Your task to perform on an android device: Open settings Image 0: 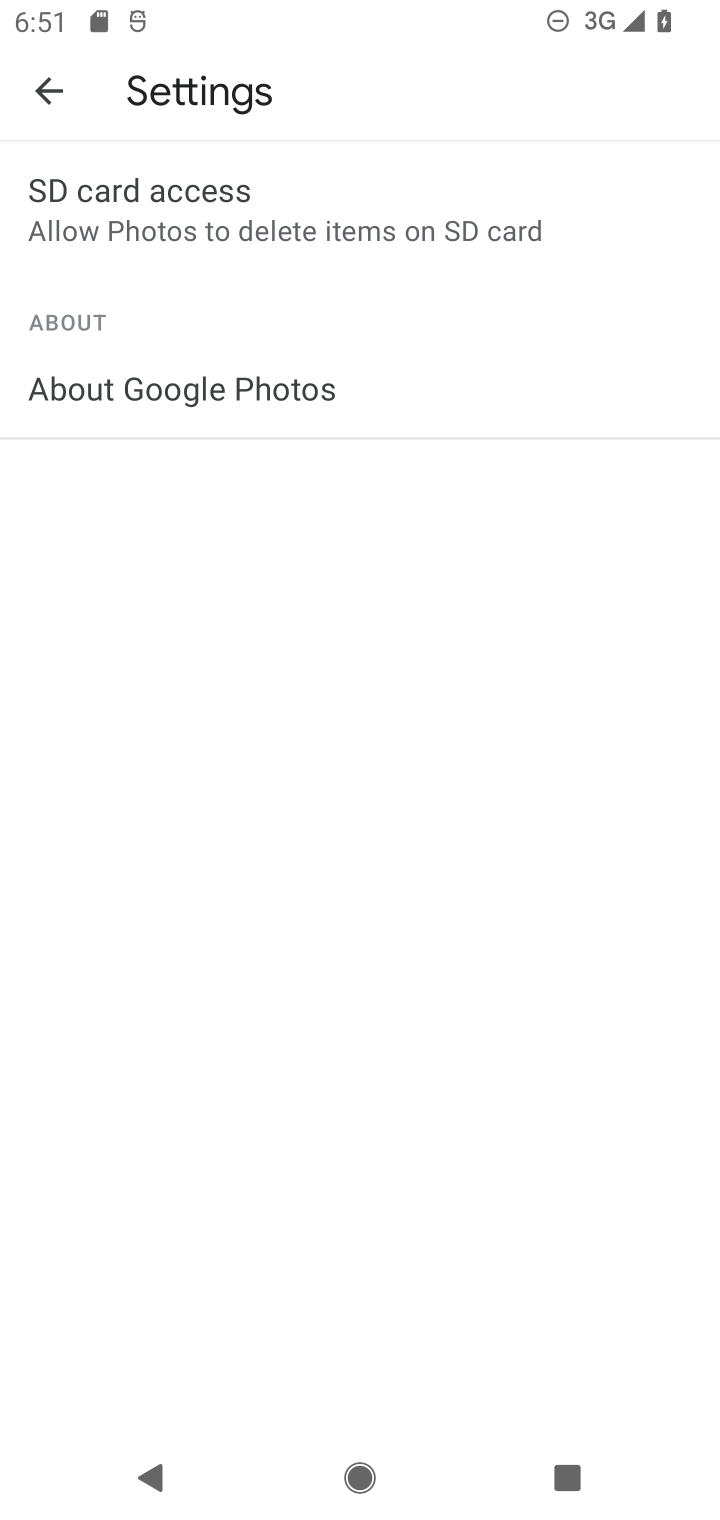
Step 0: press home button
Your task to perform on an android device: Open settings Image 1: 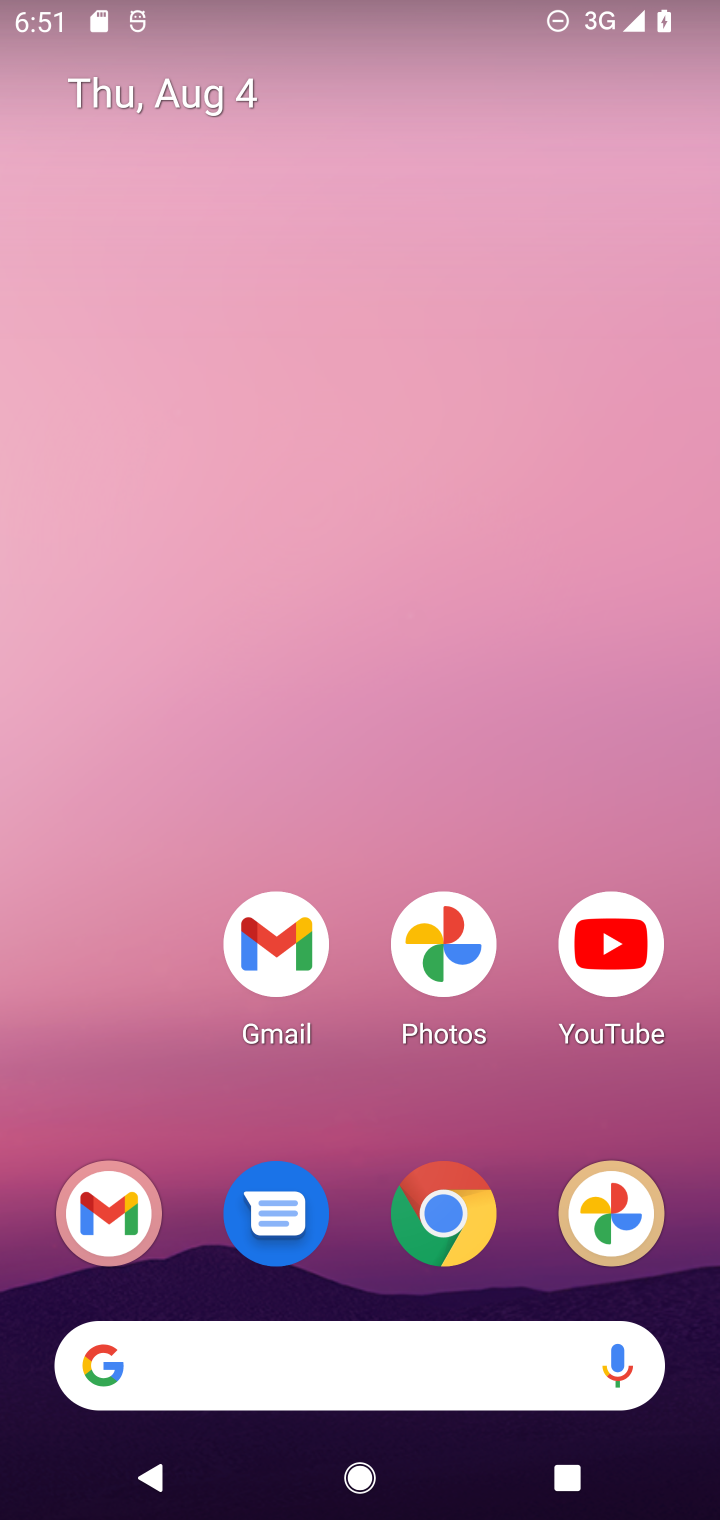
Step 1: drag from (126, 1075) to (122, 220)
Your task to perform on an android device: Open settings Image 2: 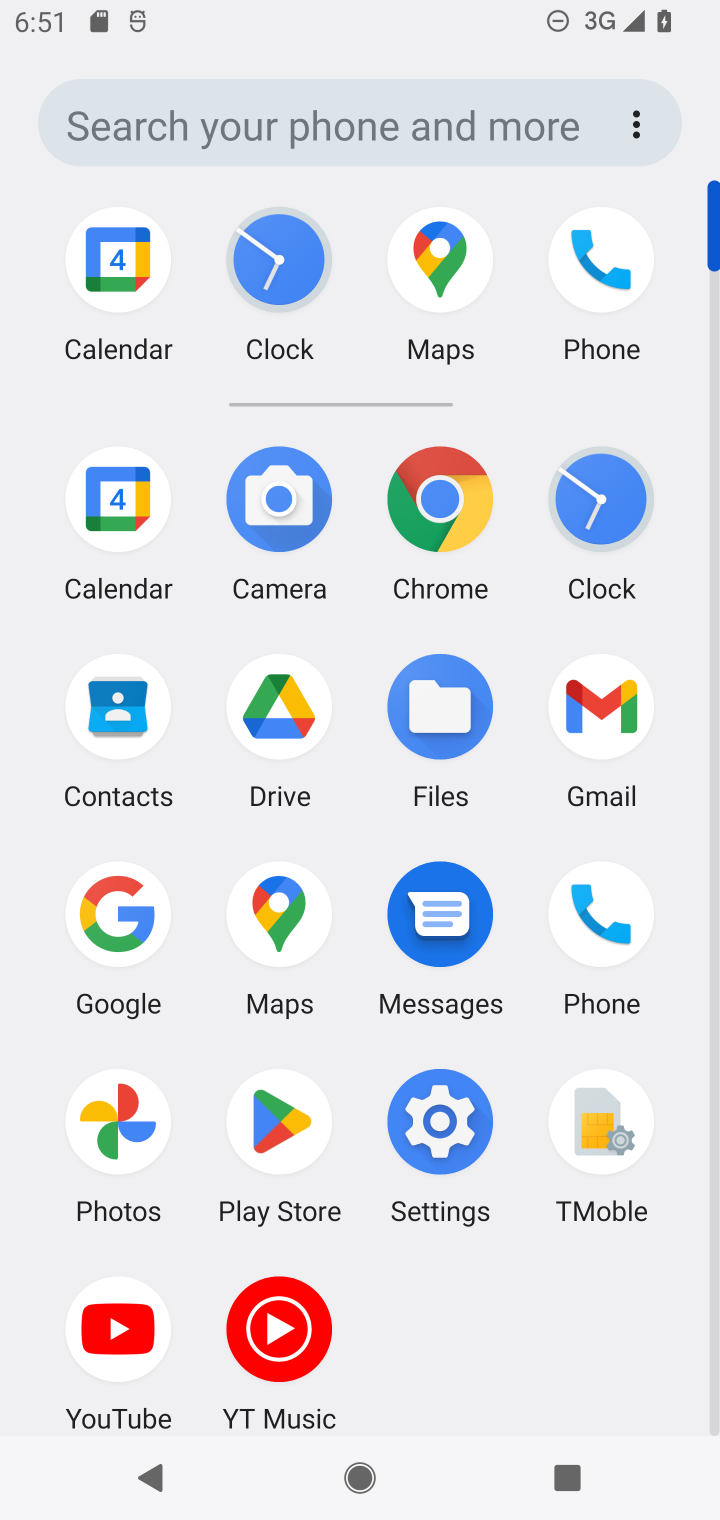
Step 2: click (445, 1113)
Your task to perform on an android device: Open settings Image 3: 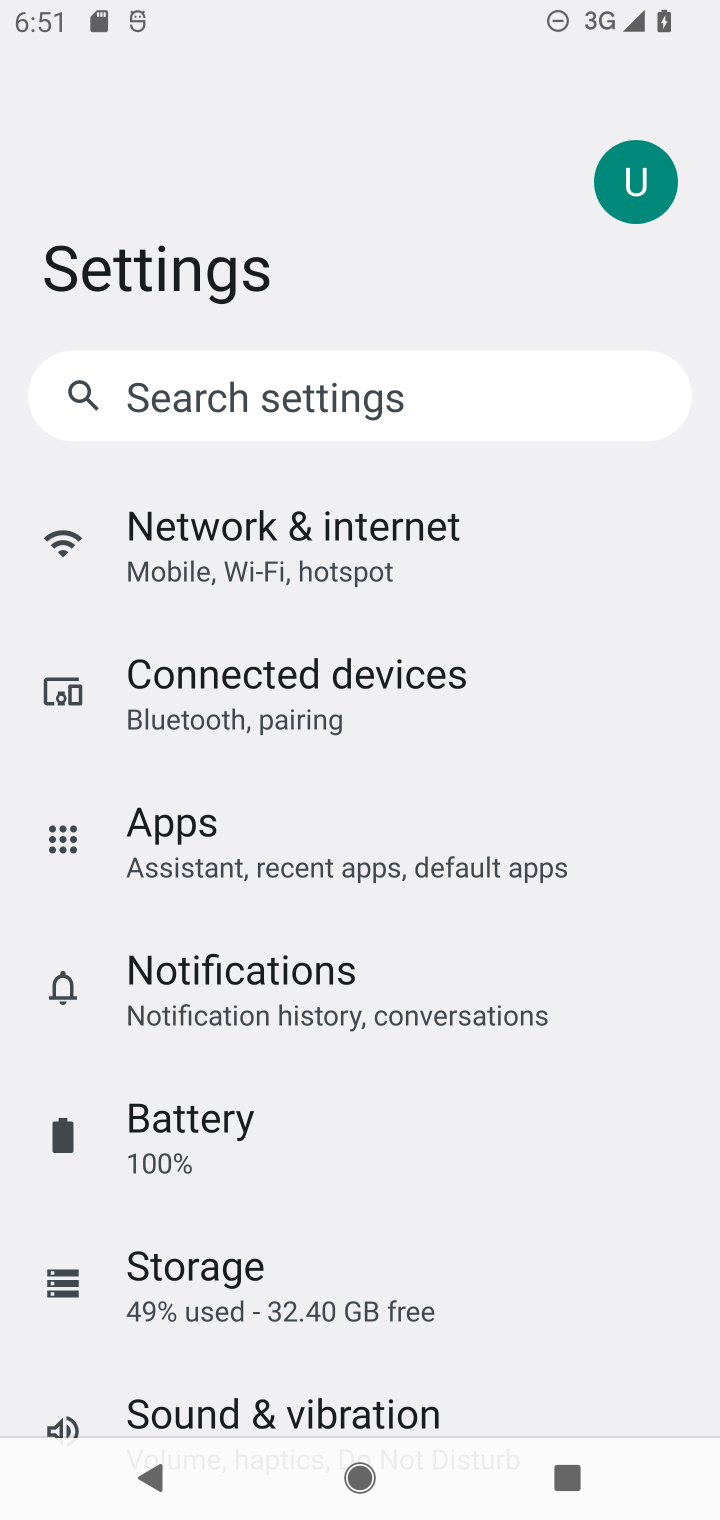
Step 3: drag from (554, 1229) to (645, 898)
Your task to perform on an android device: Open settings Image 4: 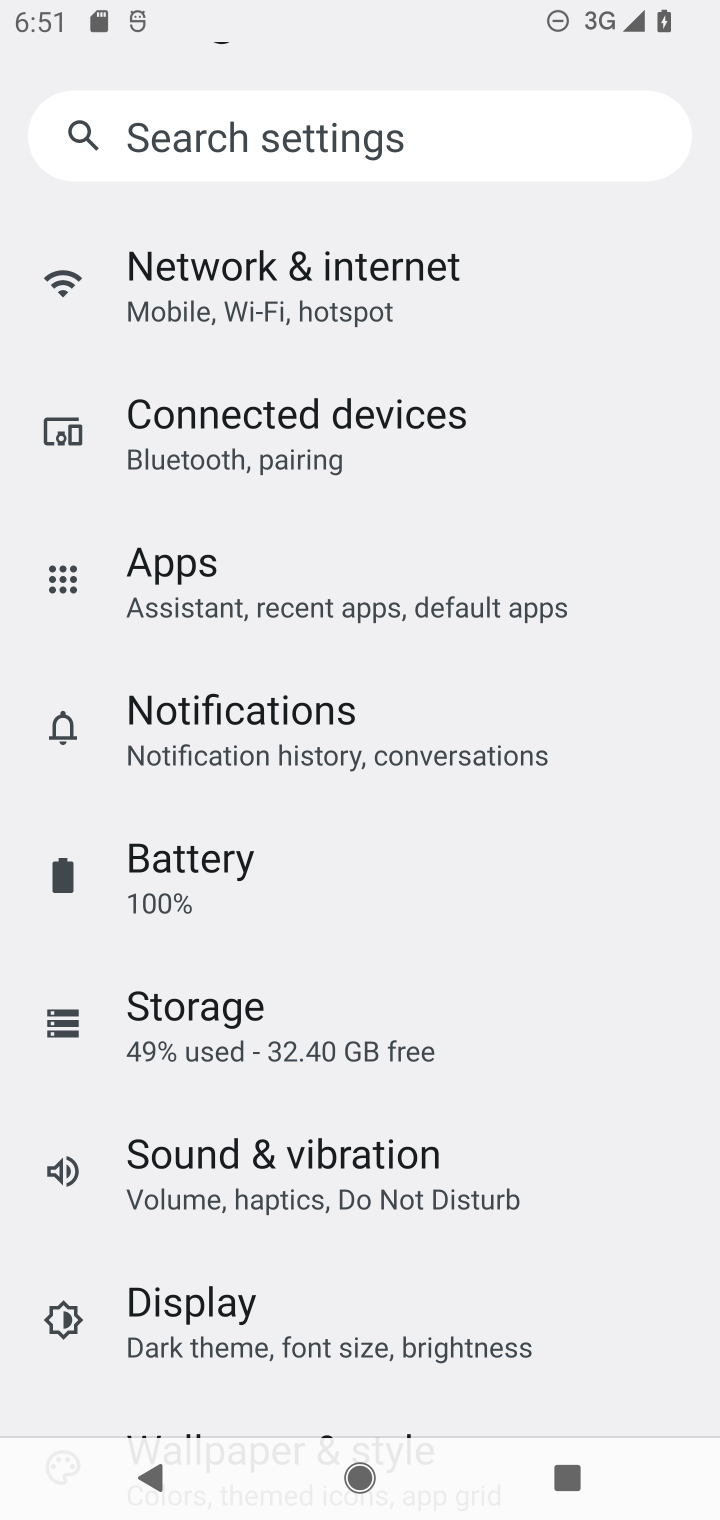
Step 4: drag from (588, 1236) to (618, 882)
Your task to perform on an android device: Open settings Image 5: 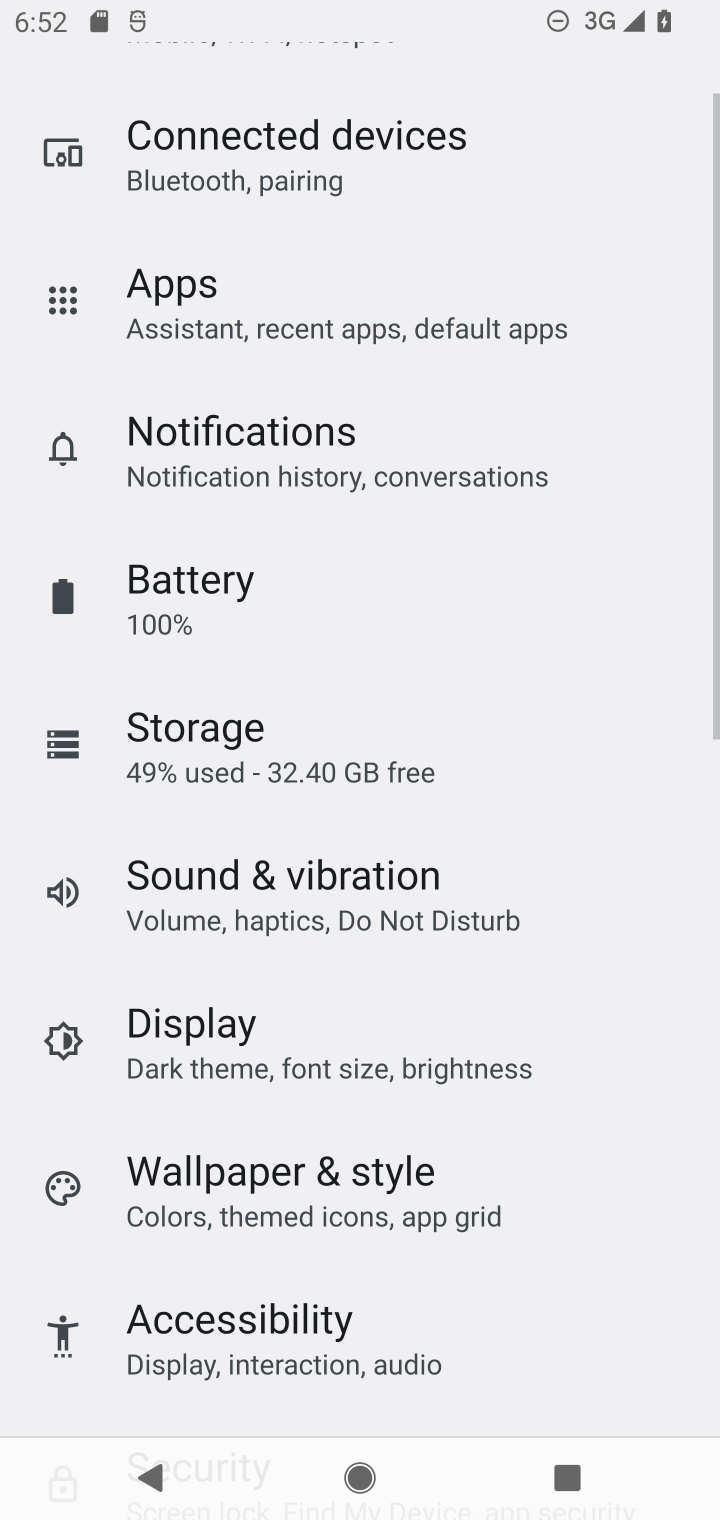
Step 5: drag from (563, 1292) to (598, 915)
Your task to perform on an android device: Open settings Image 6: 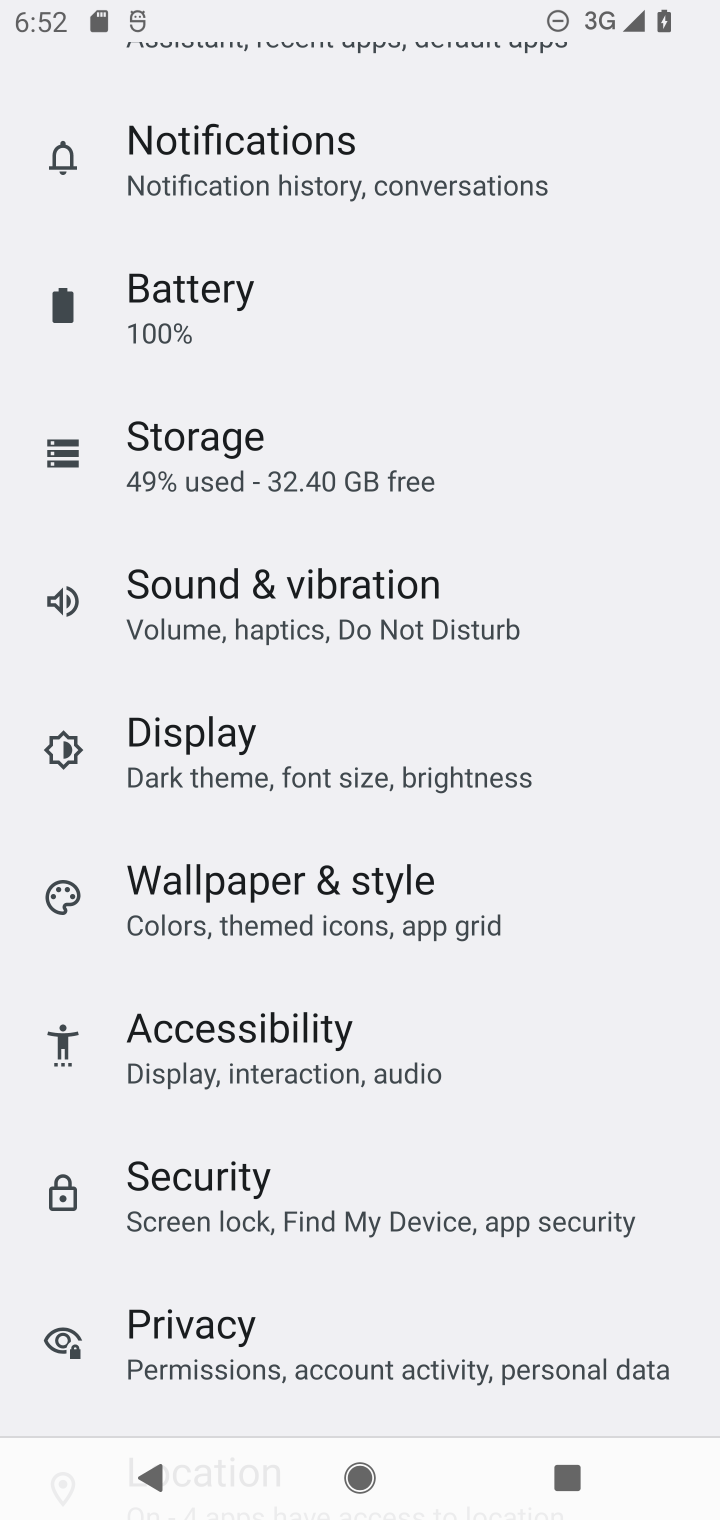
Step 6: drag from (604, 1295) to (626, 843)
Your task to perform on an android device: Open settings Image 7: 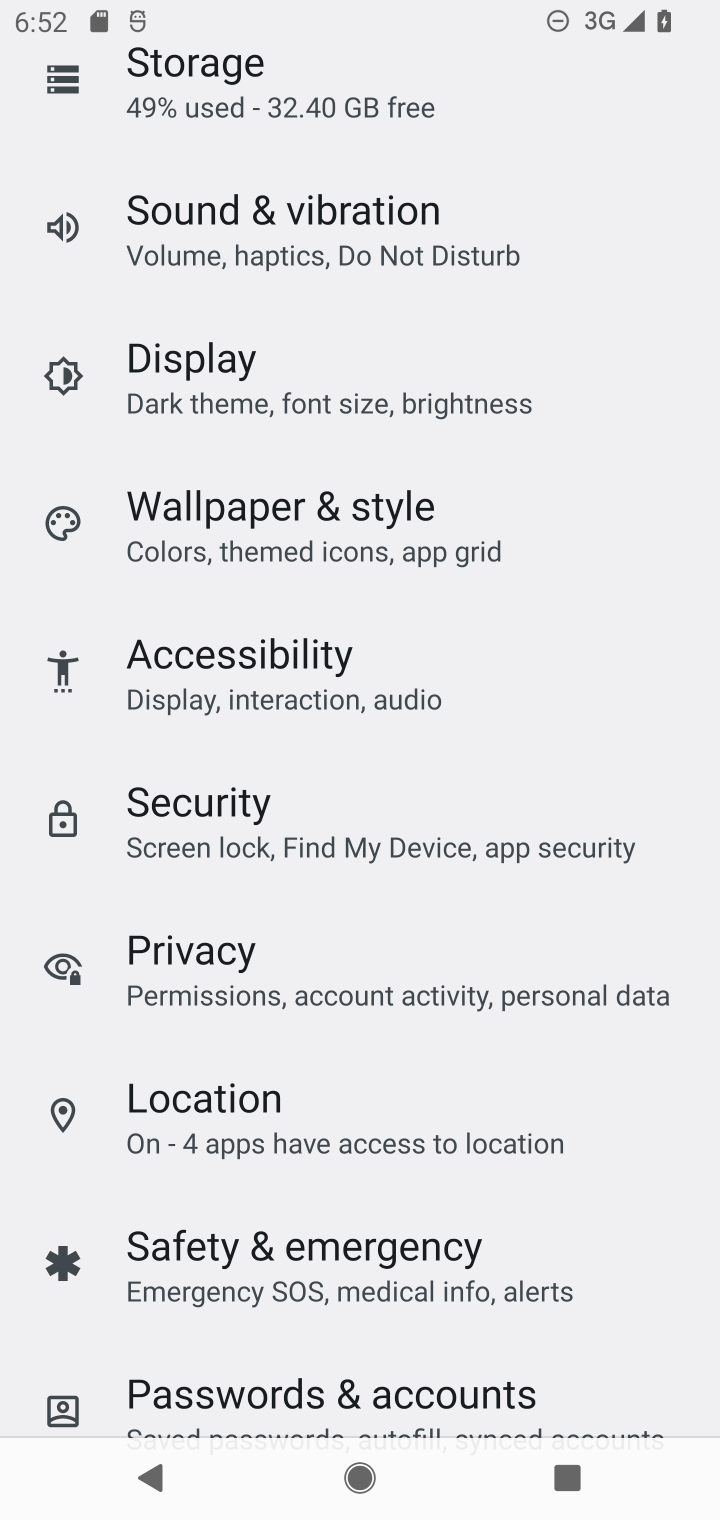
Step 7: drag from (623, 1322) to (630, 884)
Your task to perform on an android device: Open settings Image 8: 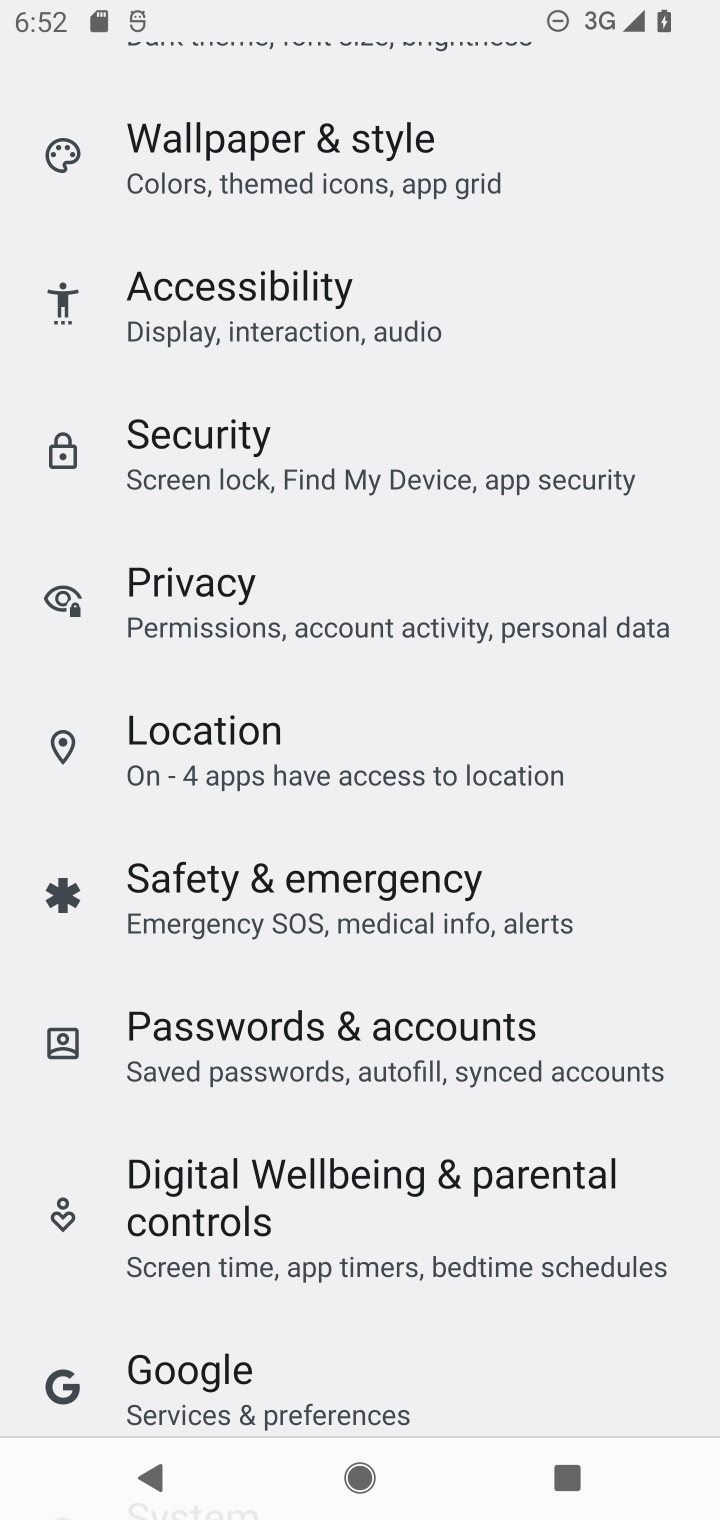
Step 8: drag from (631, 370) to (629, 668)
Your task to perform on an android device: Open settings Image 9: 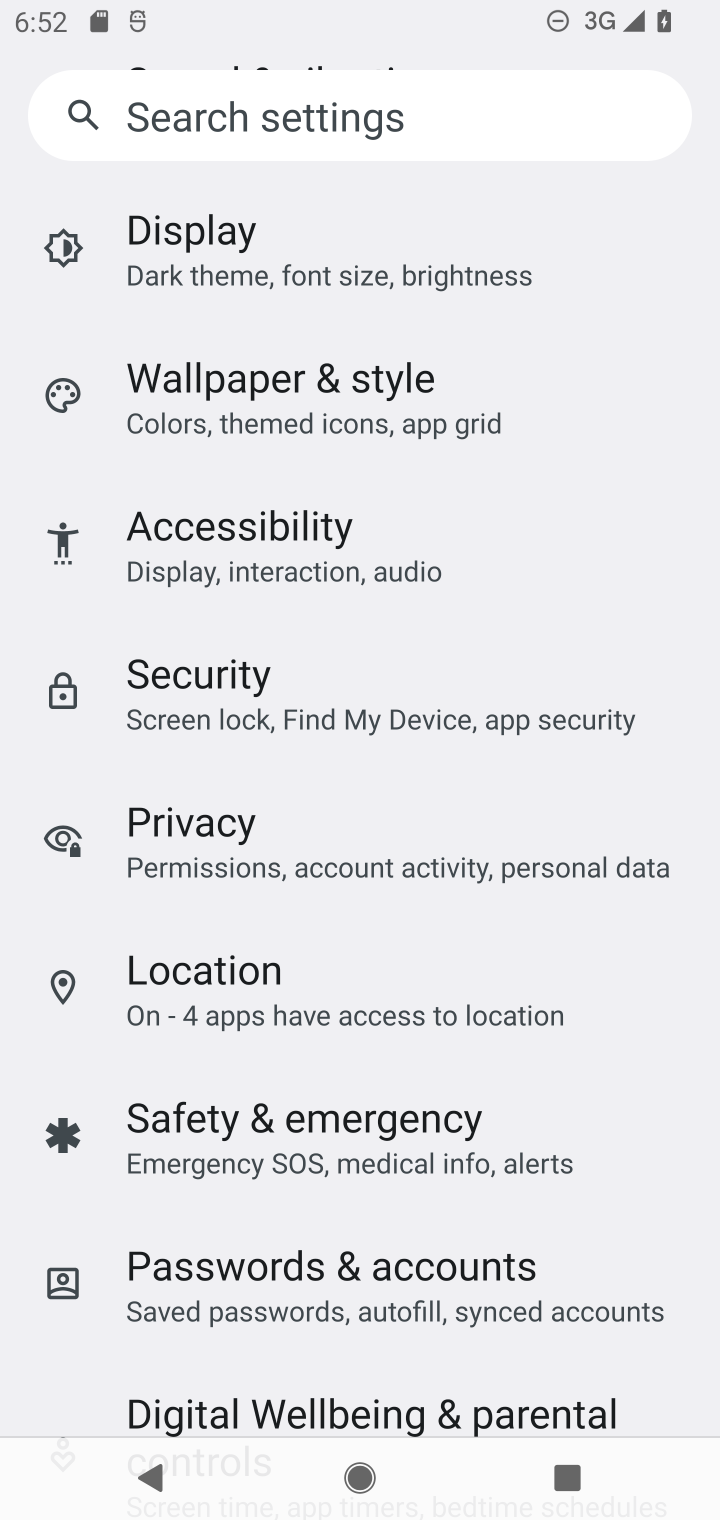
Step 9: drag from (627, 352) to (614, 707)
Your task to perform on an android device: Open settings Image 10: 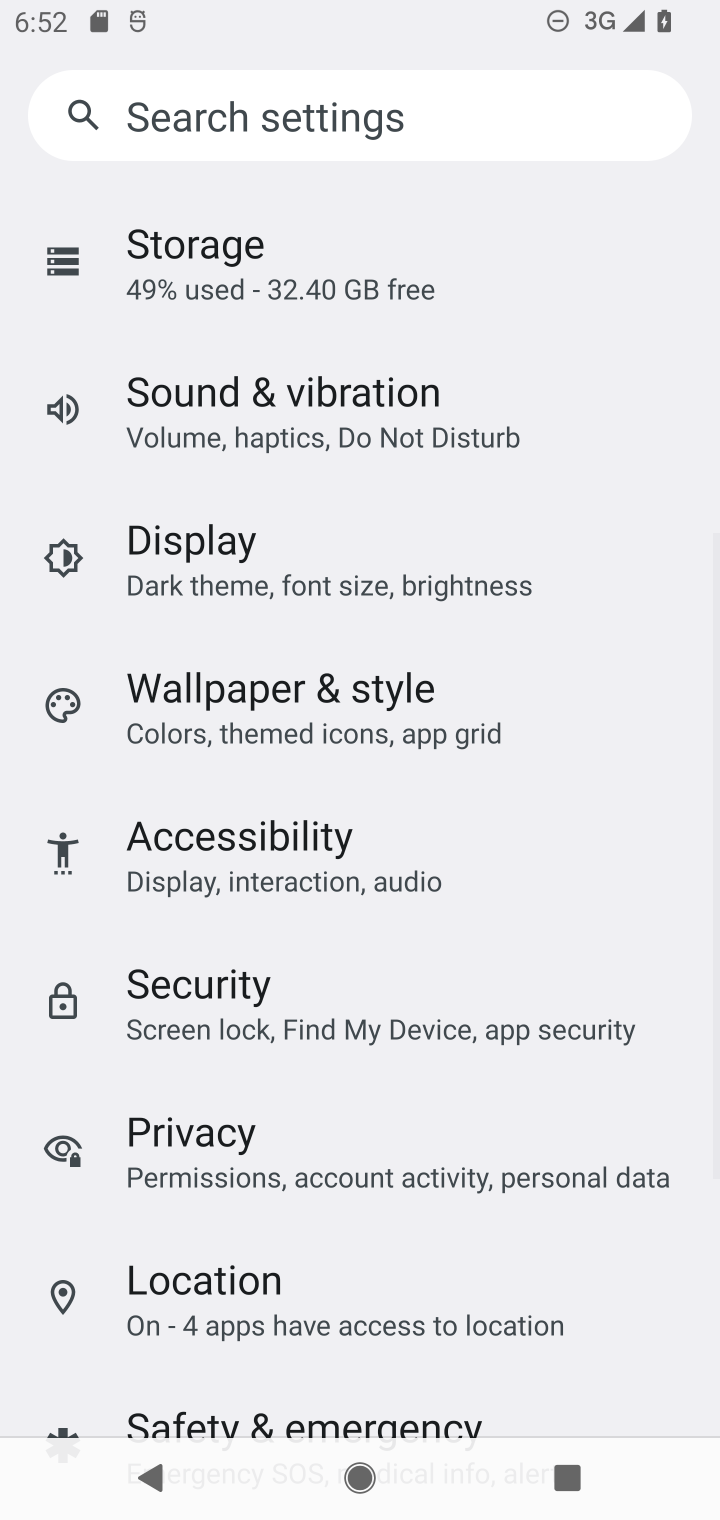
Step 10: drag from (610, 278) to (592, 713)
Your task to perform on an android device: Open settings Image 11: 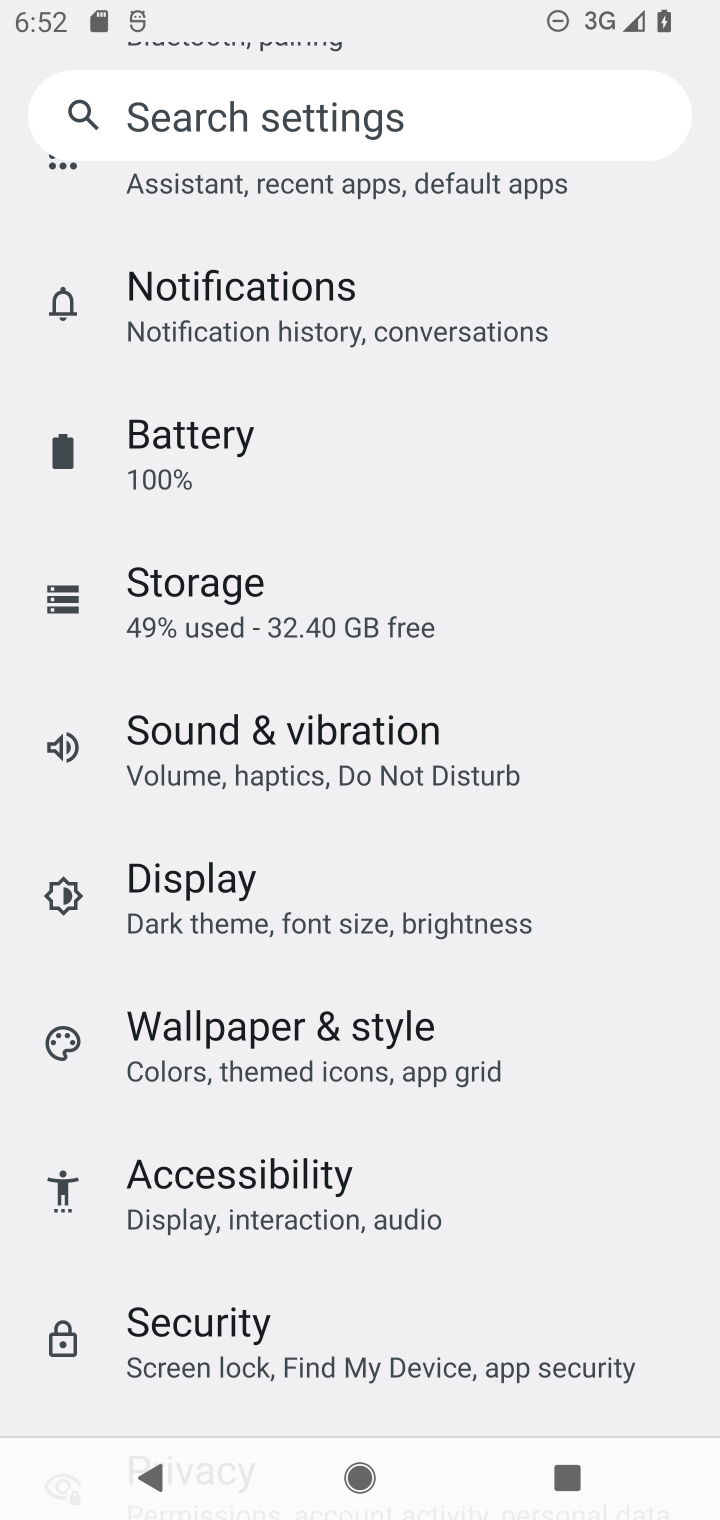
Step 11: drag from (604, 275) to (606, 673)
Your task to perform on an android device: Open settings Image 12: 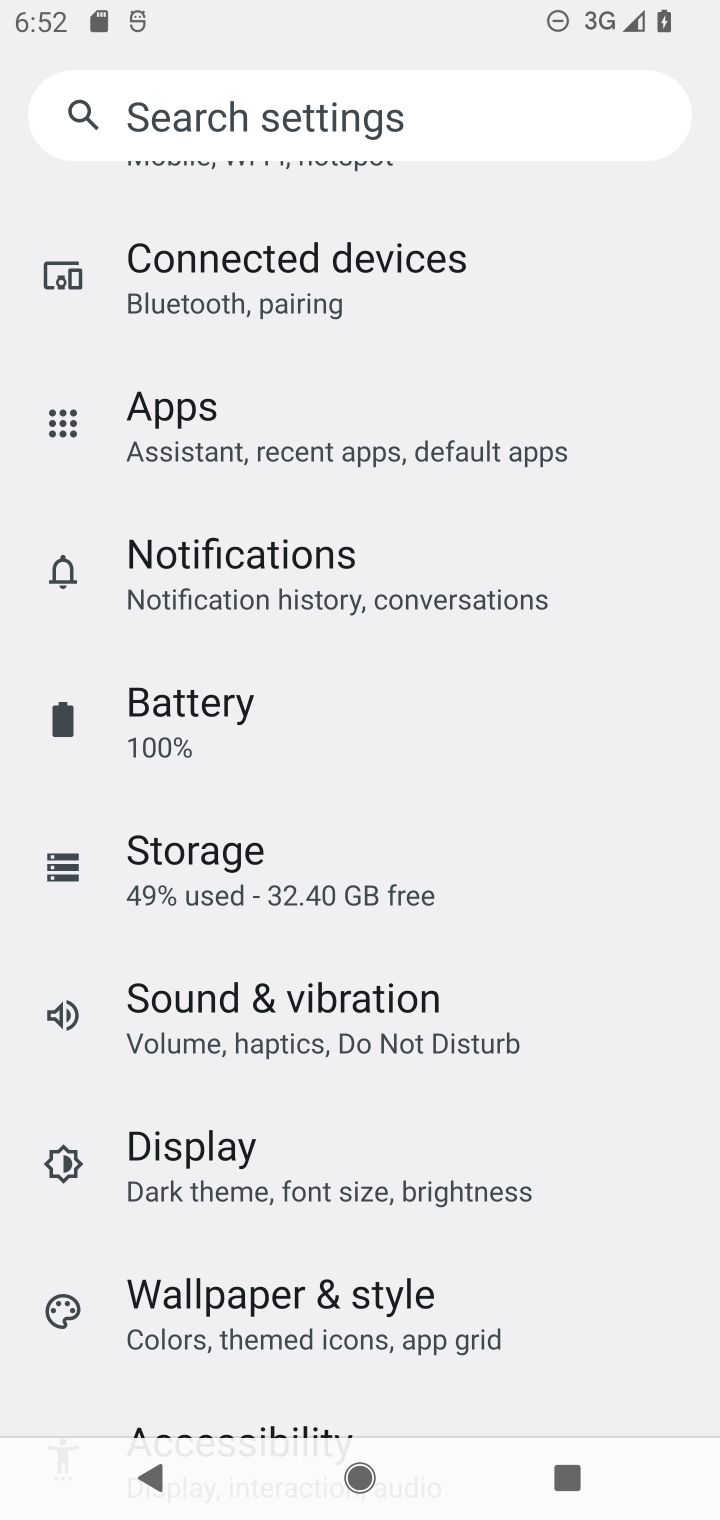
Step 12: drag from (585, 238) to (589, 727)
Your task to perform on an android device: Open settings Image 13: 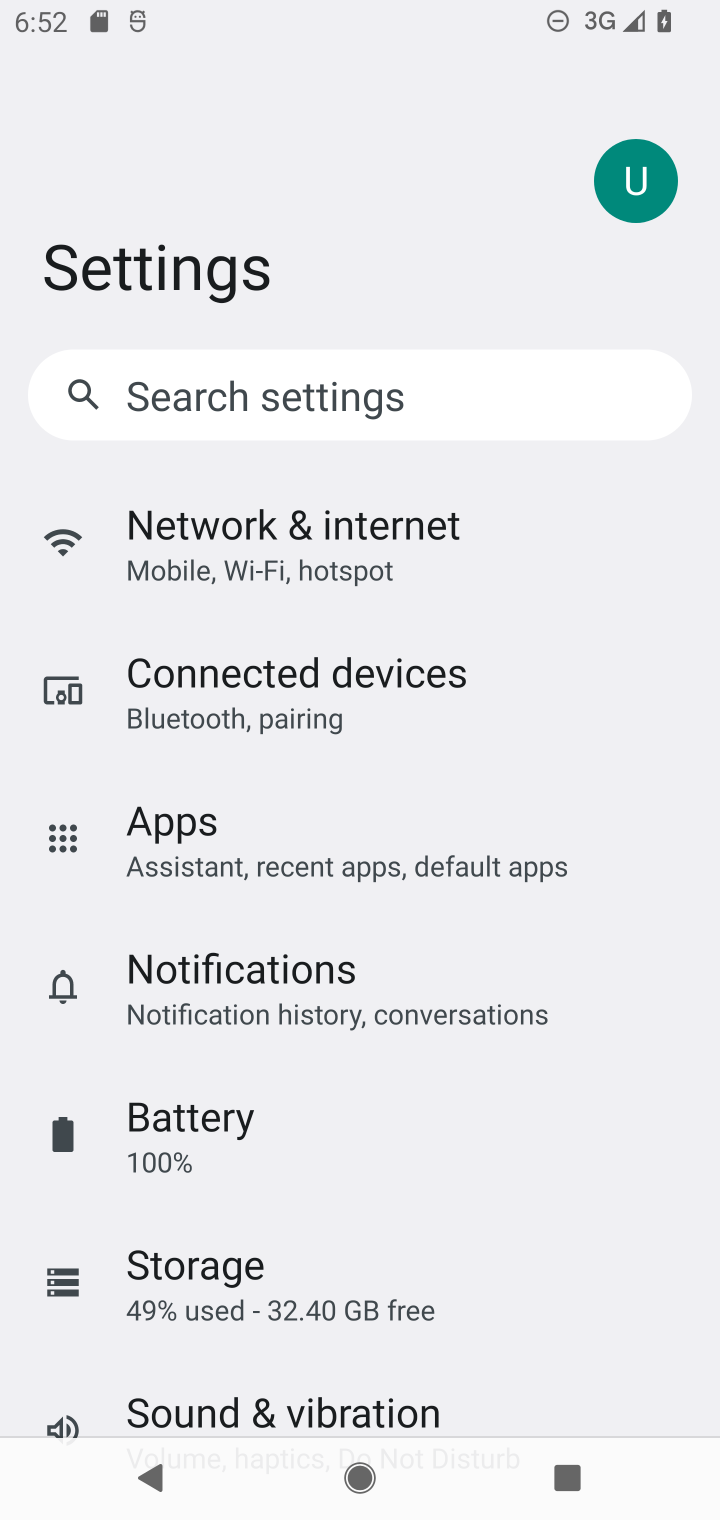
Step 13: drag from (525, 1234) to (548, 887)
Your task to perform on an android device: Open settings Image 14: 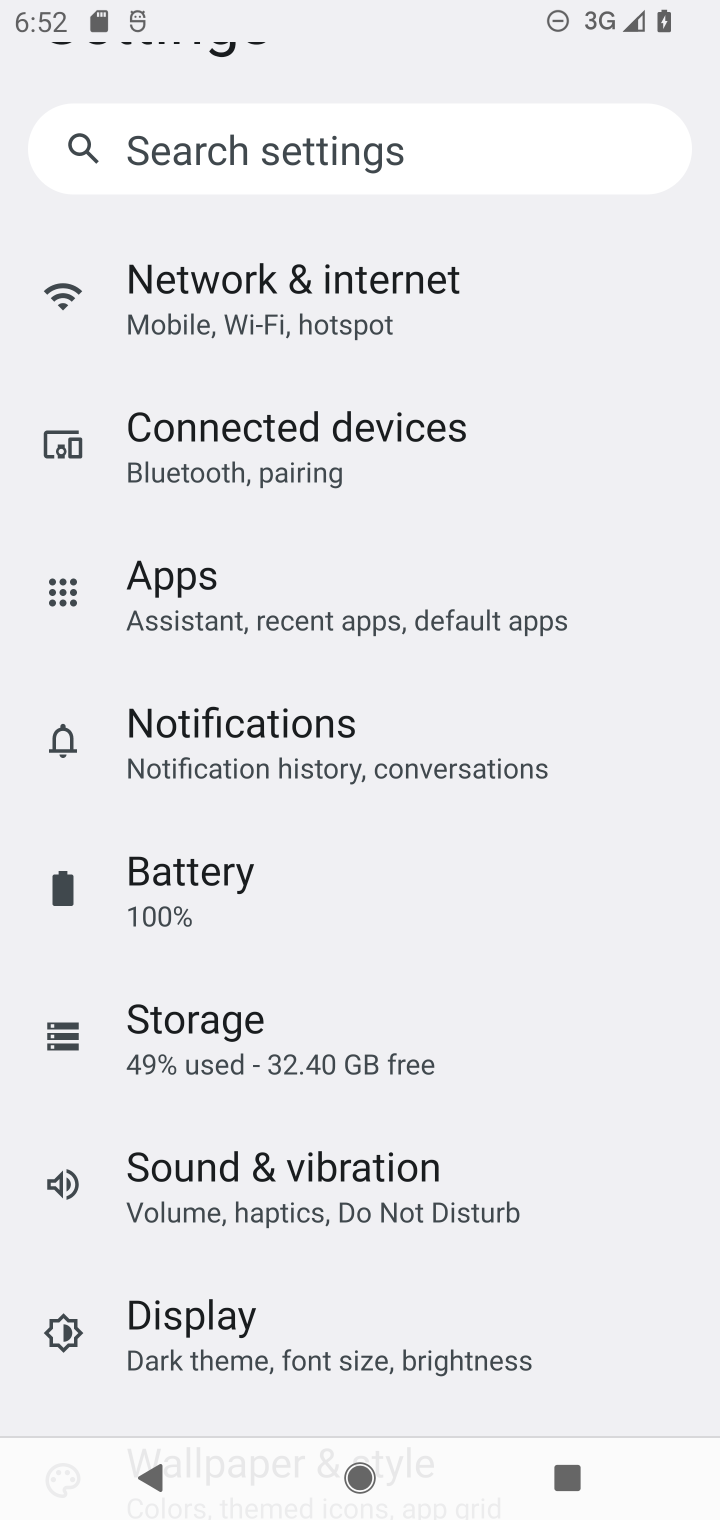
Step 14: click (509, 1197)
Your task to perform on an android device: Open settings Image 15: 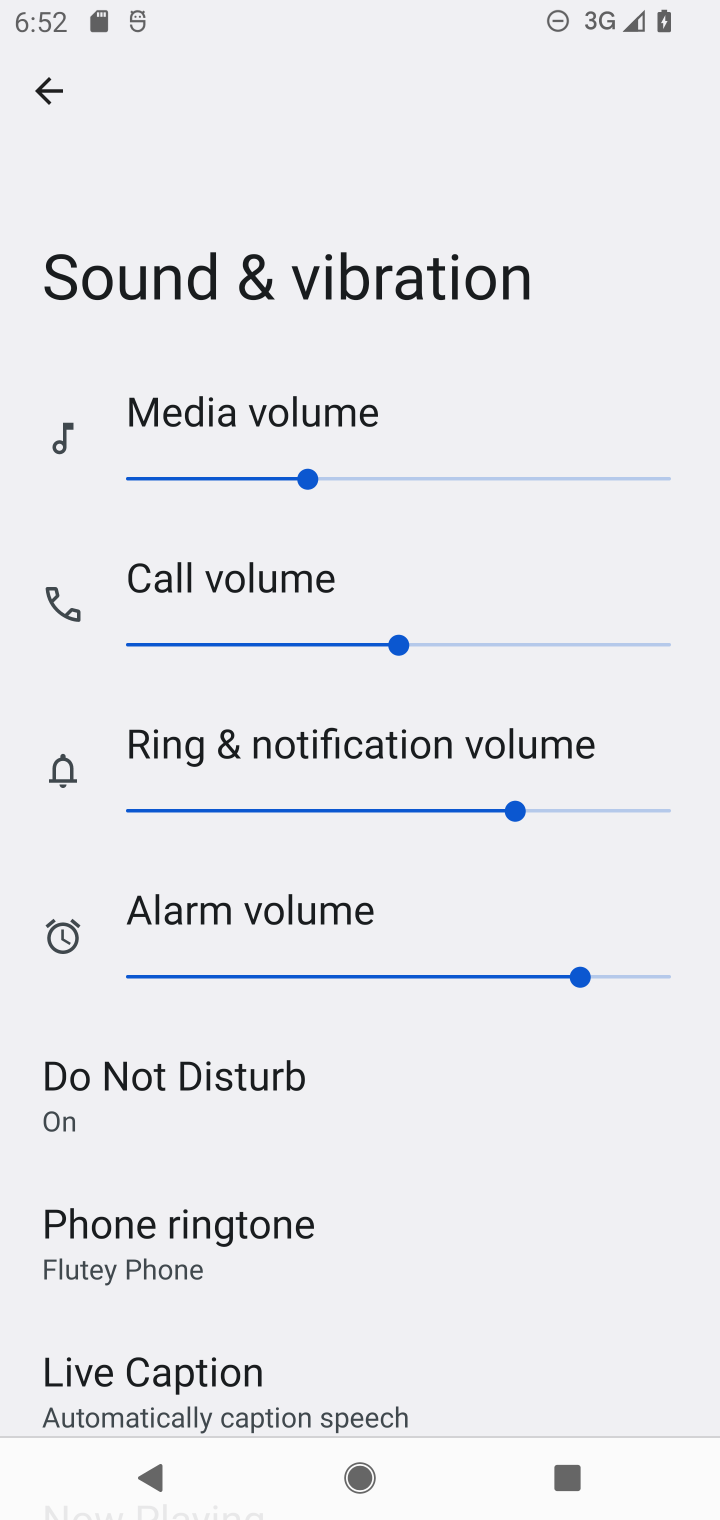
Step 15: task complete